Your task to perform on an android device: Open Chrome and go to settings Image 0: 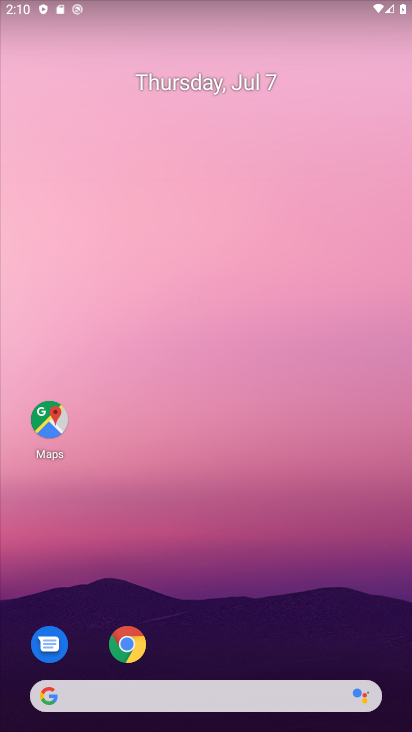
Step 0: drag from (273, 633) to (211, 99)
Your task to perform on an android device: Open Chrome and go to settings Image 1: 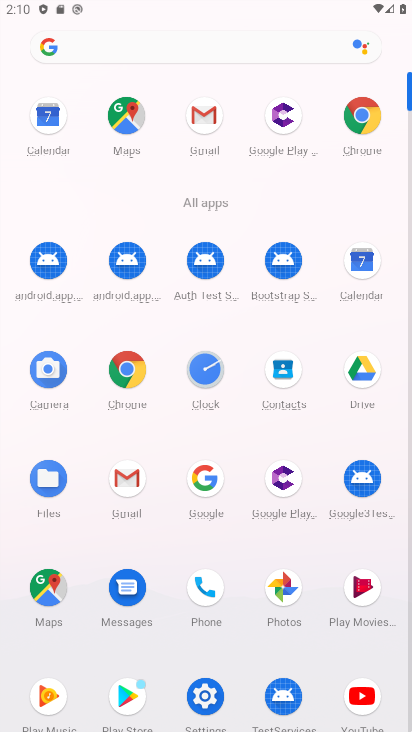
Step 1: click (370, 120)
Your task to perform on an android device: Open Chrome and go to settings Image 2: 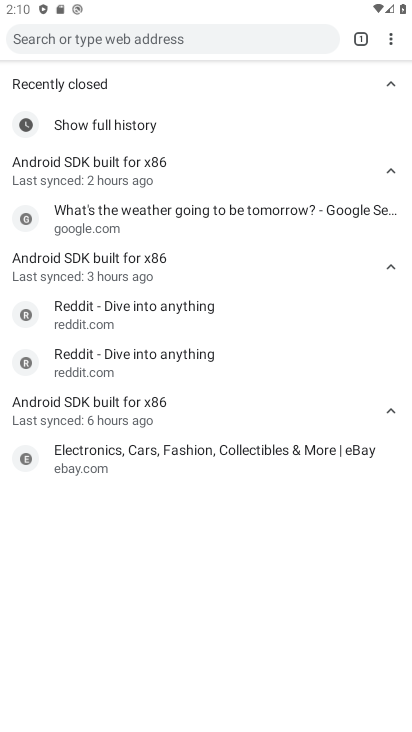
Step 2: click (387, 42)
Your task to perform on an android device: Open Chrome and go to settings Image 3: 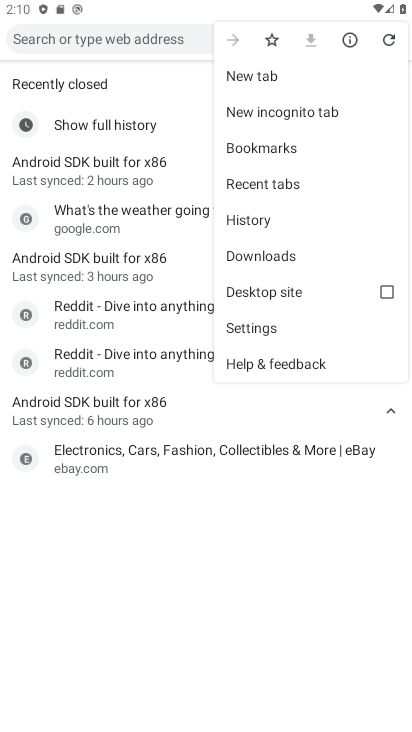
Step 3: click (292, 326)
Your task to perform on an android device: Open Chrome and go to settings Image 4: 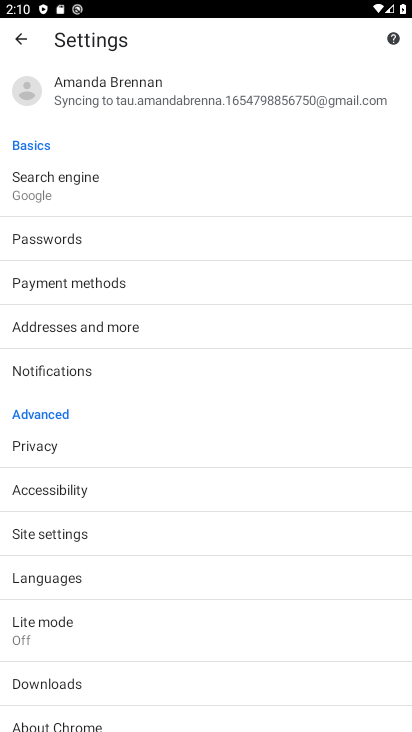
Step 4: task complete